Your task to perform on an android device: toggle notifications settings in the gmail app Image 0: 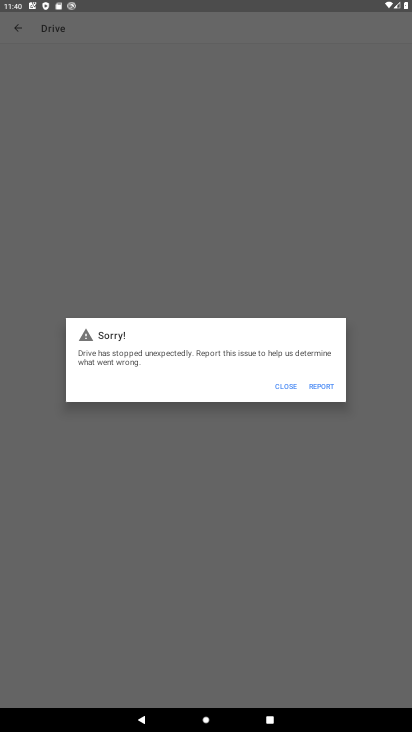
Step 0: press home button
Your task to perform on an android device: toggle notifications settings in the gmail app Image 1: 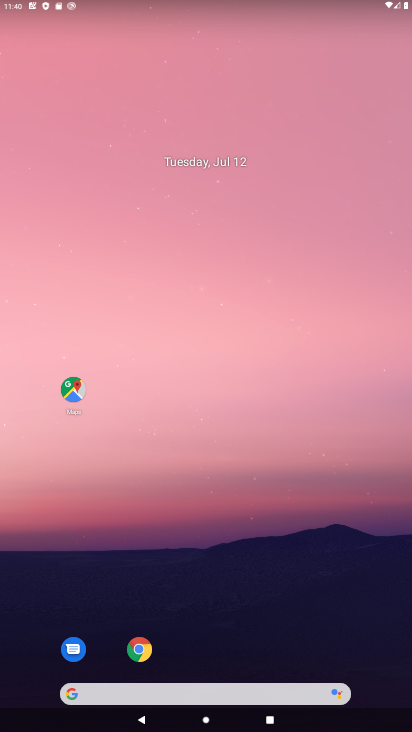
Step 1: drag from (233, 665) to (301, 64)
Your task to perform on an android device: toggle notifications settings in the gmail app Image 2: 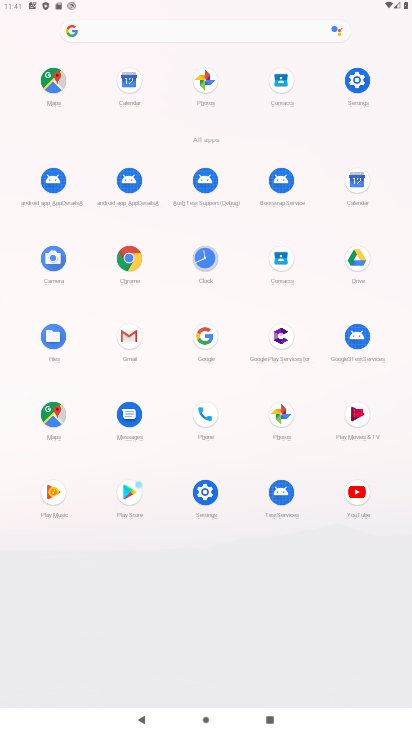
Step 2: click (125, 345)
Your task to perform on an android device: toggle notifications settings in the gmail app Image 3: 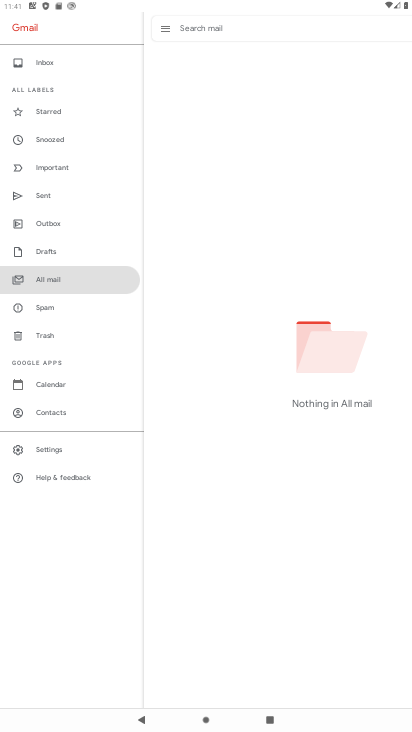
Step 3: click (31, 446)
Your task to perform on an android device: toggle notifications settings in the gmail app Image 4: 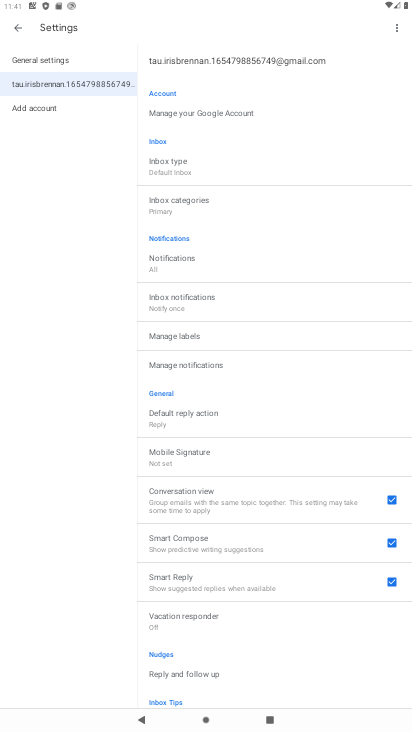
Step 4: click (239, 365)
Your task to perform on an android device: toggle notifications settings in the gmail app Image 5: 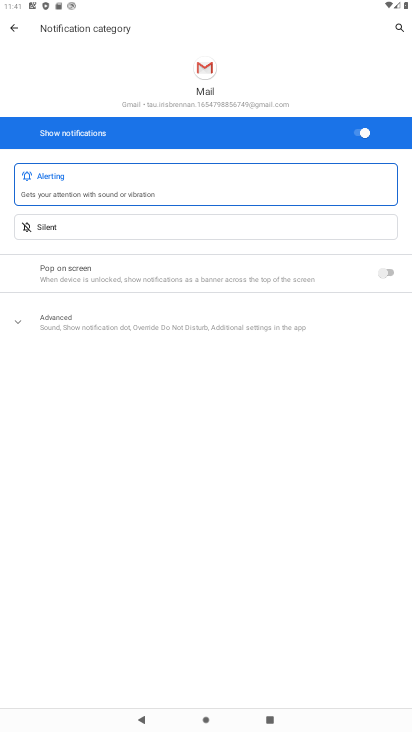
Step 5: click (374, 133)
Your task to perform on an android device: toggle notifications settings in the gmail app Image 6: 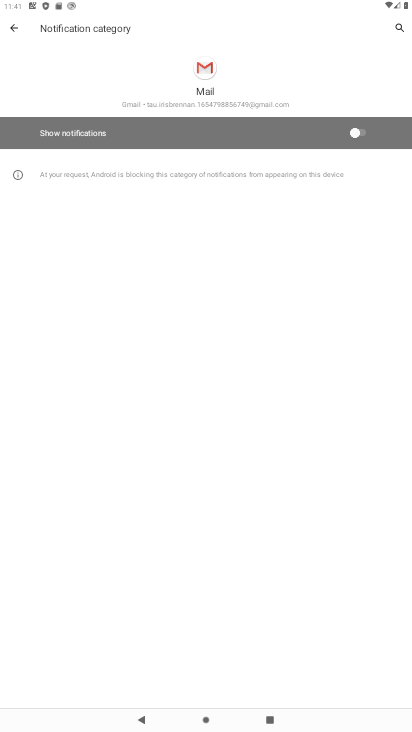
Step 6: task complete